Your task to perform on an android device: toggle javascript in the chrome app Image 0: 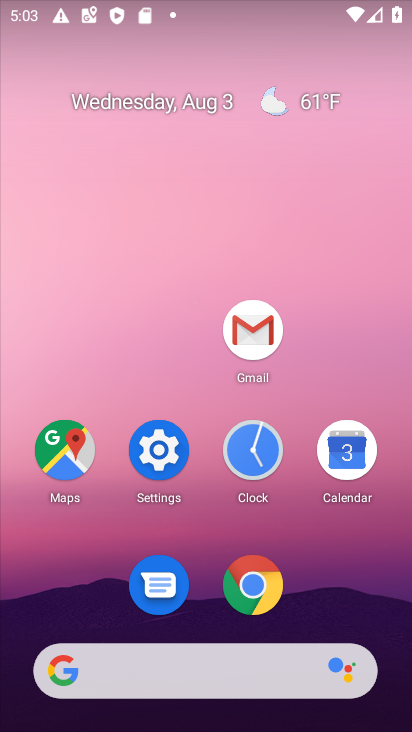
Step 0: click (233, 588)
Your task to perform on an android device: toggle javascript in the chrome app Image 1: 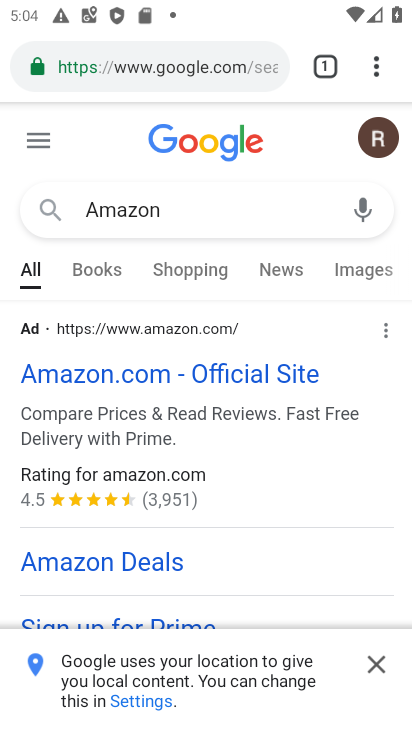
Step 1: click (371, 71)
Your task to perform on an android device: toggle javascript in the chrome app Image 2: 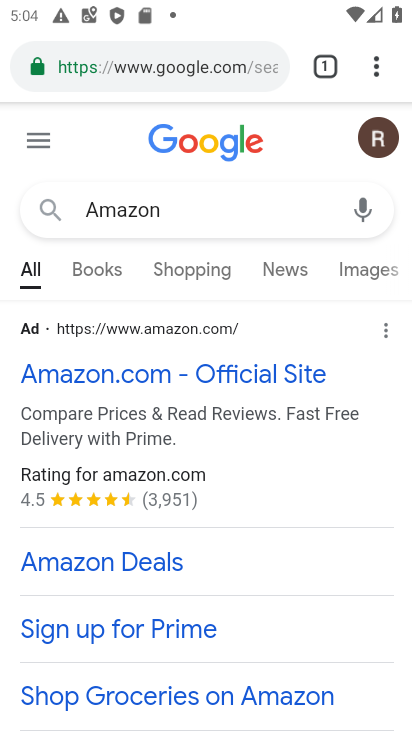
Step 2: click (371, 58)
Your task to perform on an android device: toggle javascript in the chrome app Image 3: 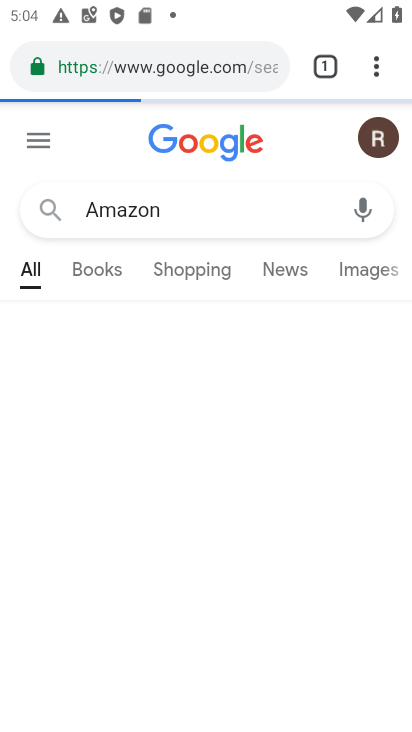
Step 3: click (374, 64)
Your task to perform on an android device: toggle javascript in the chrome app Image 4: 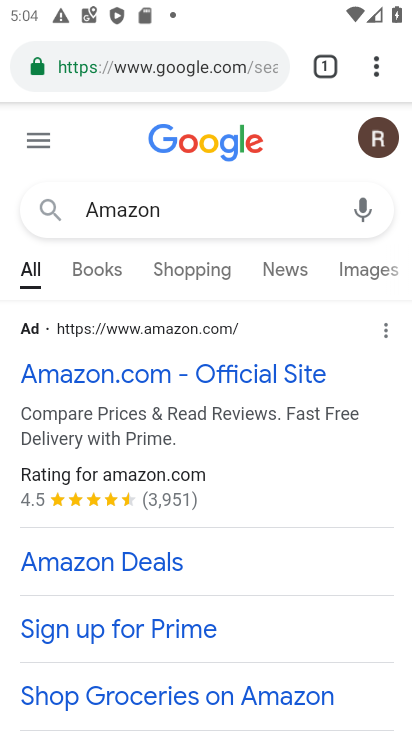
Step 4: click (375, 65)
Your task to perform on an android device: toggle javascript in the chrome app Image 5: 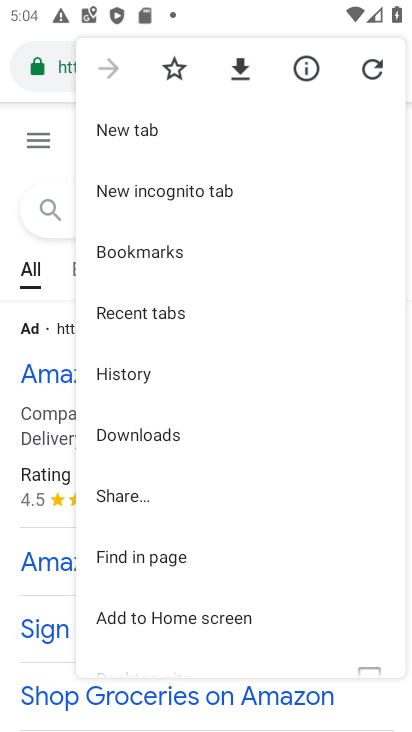
Step 5: drag from (283, 634) to (265, 280)
Your task to perform on an android device: toggle javascript in the chrome app Image 6: 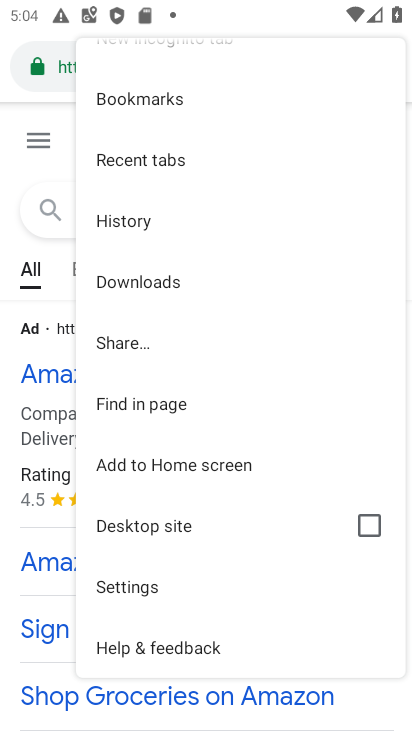
Step 6: click (133, 586)
Your task to perform on an android device: toggle javascript in the chrome app Image 7: 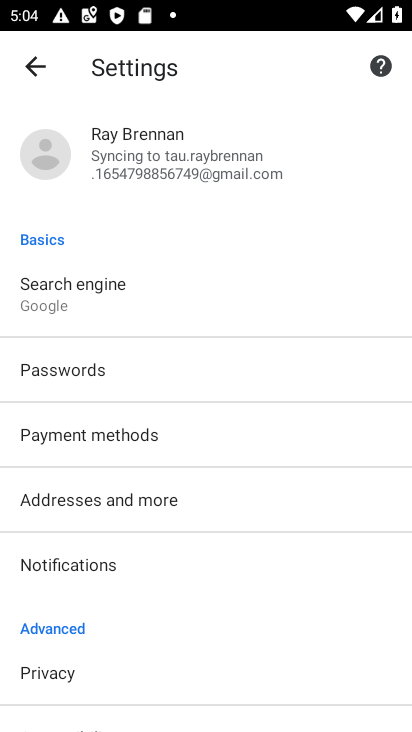
Step 7: drag from (195, 664) to (205, 406)
Your task to perform on an android device: toggle javascript in the chrome app Image 8: 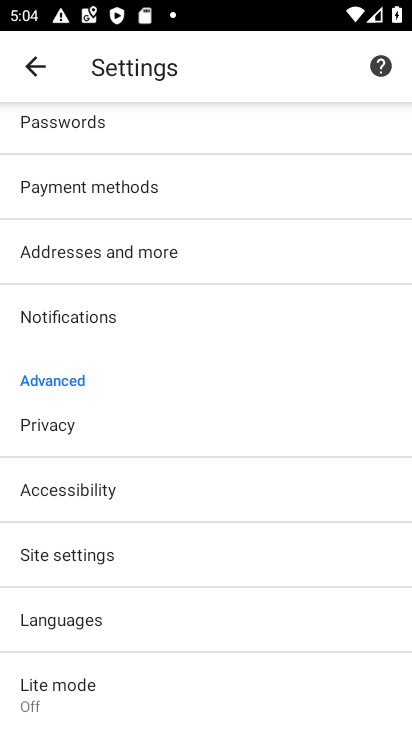
Step 8: click (61, 549)
Your task to perform on an android device: toggle javascript in the chrome app Image 9: 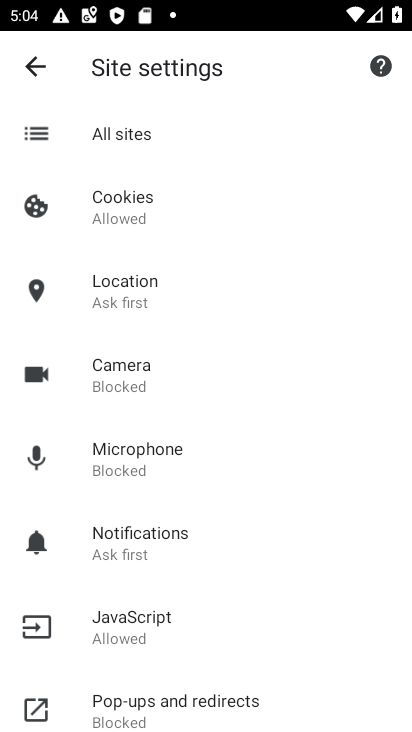
Step 9: click (122, 626)
Your task to perform on an android device: toggle javascript in the chrome app Image 10: 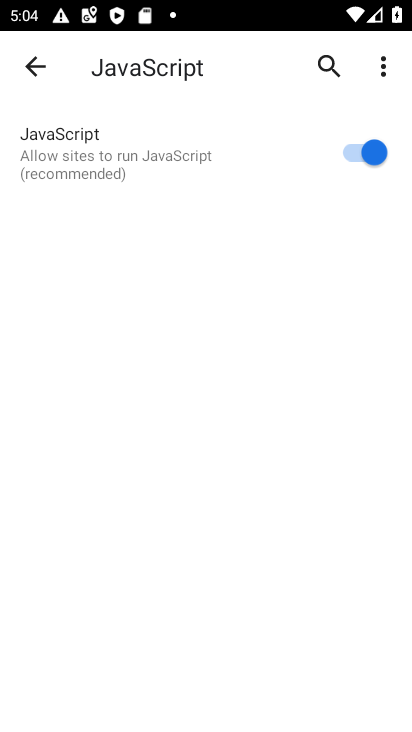
Step 10: click (354, 145)
Your task to perform on an android device: toggle javascript in the chrome app Image 11: 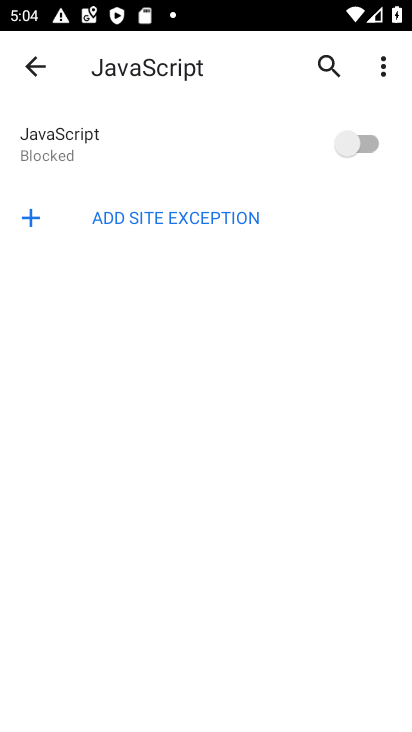
Step 11: task complete